Your task to perform on an android device: Go to Reddit.com Image 0: 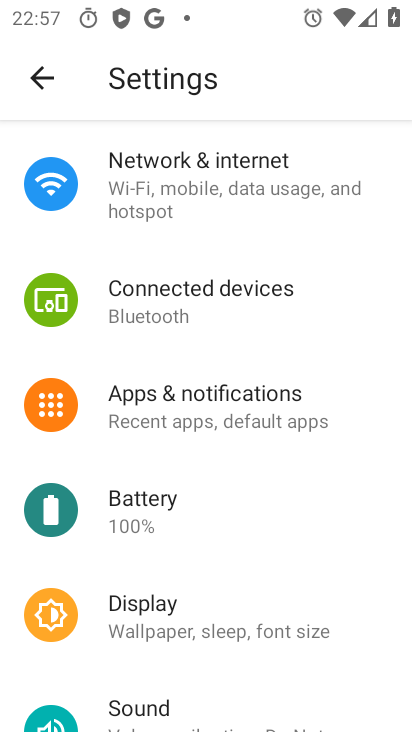
Step 0: click (28, 89)
Your task to perform on an android device: Go to Reddit.com Image 1: 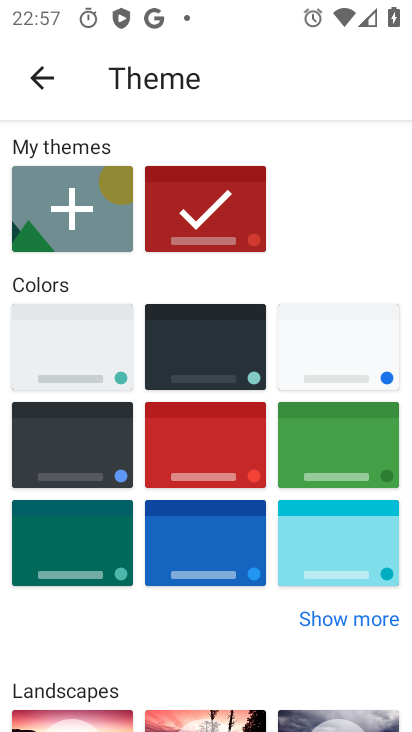
Step 1: click (29, 63)
Your task to perform on an android device: Go to Reddit.com Image 2: 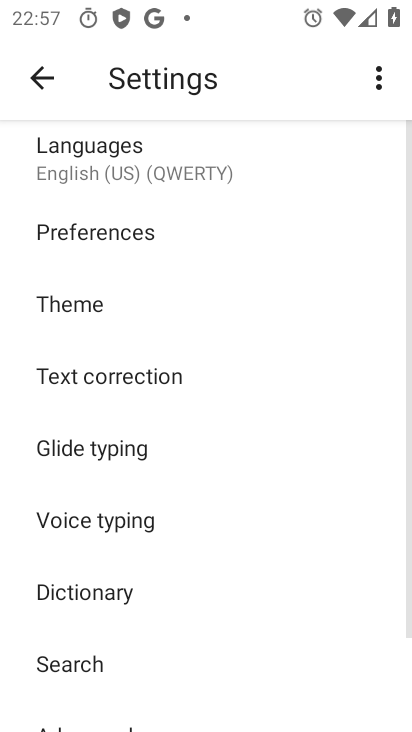
Step 2: click (13, 70)
Your task to perform on an android device: Go to Reddit.com Image 3: 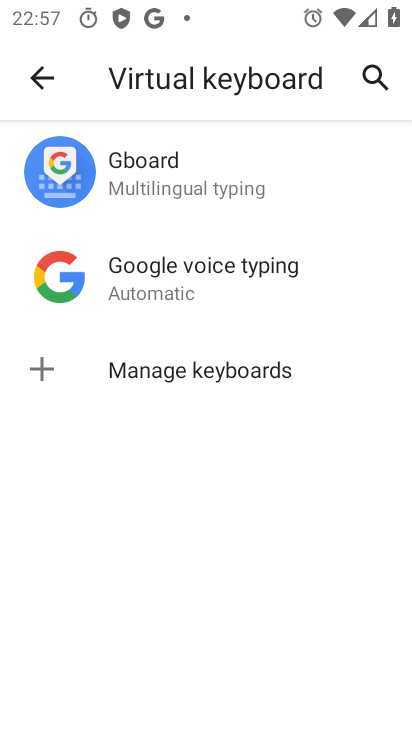
Step 3: click (38, 76)
Your task to perform on an android device: Go to Reddit.com Image 4: 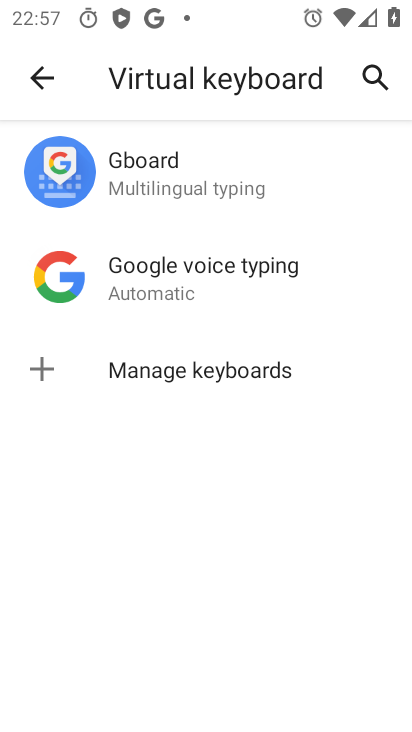
Step 4: click (39, 76)
Your task to perform on an android device: Go to Reddit.com Image 5: 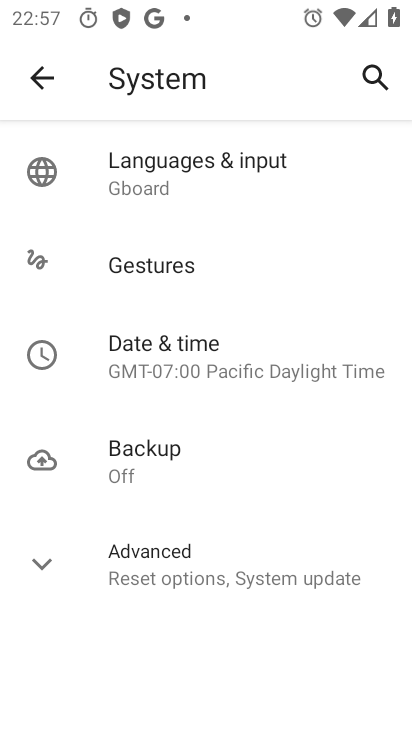
Step 5: click (38, 45)
Your task to perform on an android device: Go to Reddit.com Image 6: 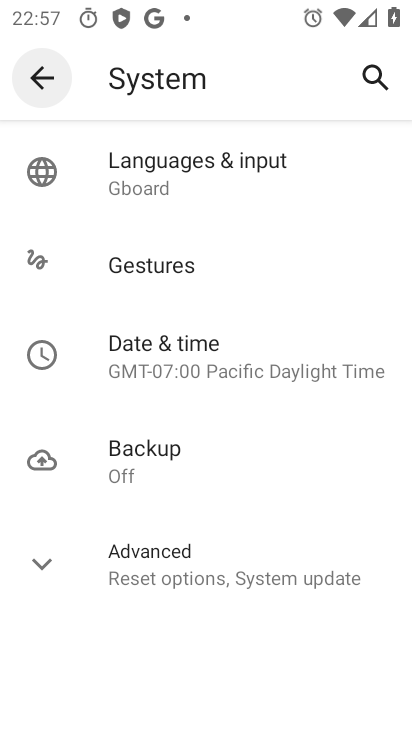
Step 6: click (44, 78)
Your task to perform on an android device: Go to Reddit.com Image 7: 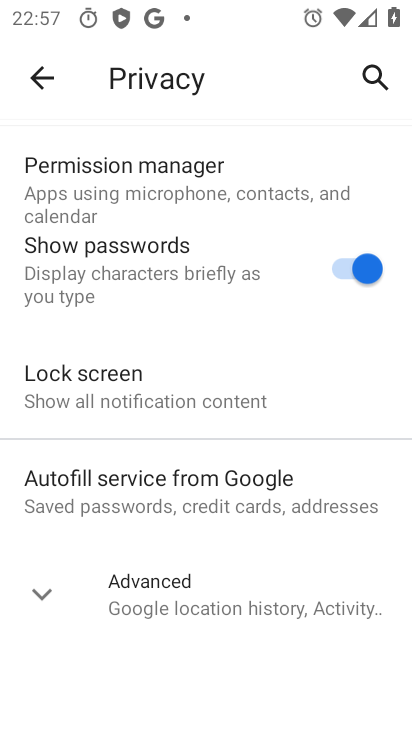
Step 7: press back button
Your task to perform on an android device: Go to Reddit.com Image 8: 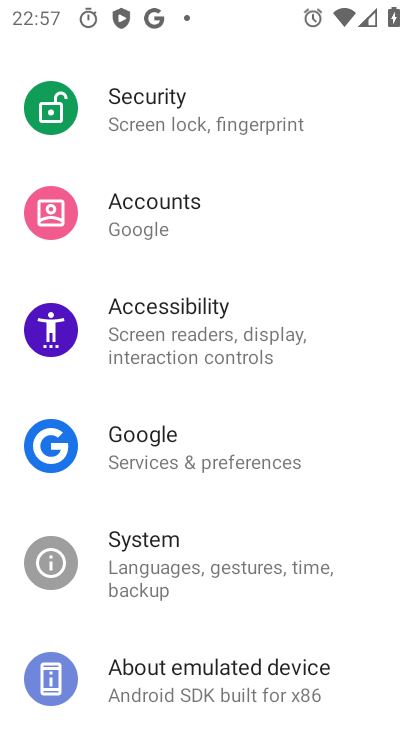
Step 8: click (41, 85)
Your task to perform on an android device: Go to Reddit.com Image 9: 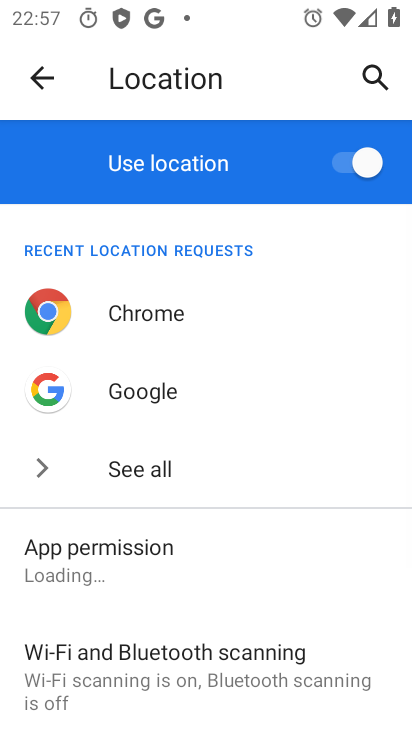
Step 9: click (31, 81)
Your task to perform on an android device: Go to Reddit.com Image 10: 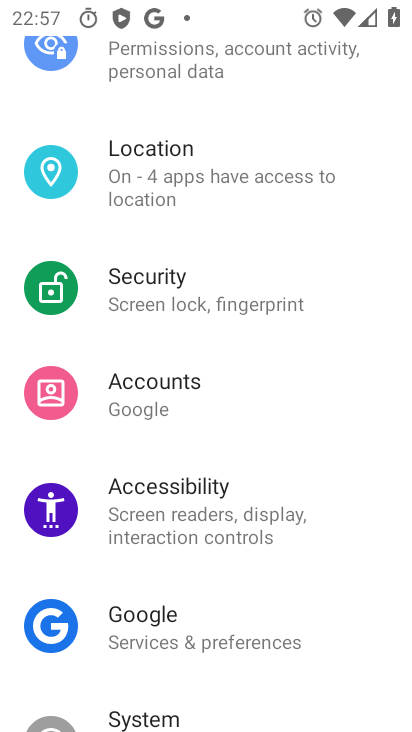
Step 10: press home button
Your task to perform on an android device: Go to Reddit.com Image 11: 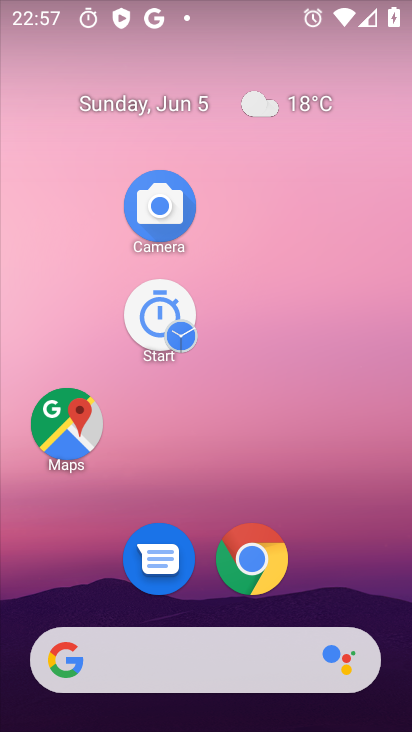
Step 11: drag from (160, 452) to (97, 123)
Your task to perform on an android device: Go to Reddit.com Image 12: 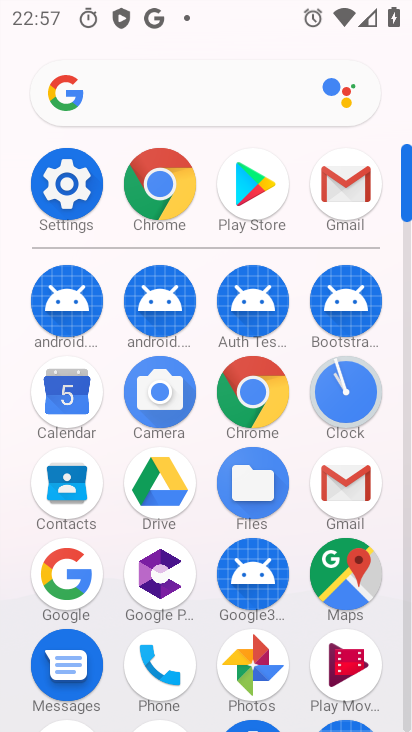
Step 12: click (140, 163)
Your task to perform on an android device: Go to Reddit.com Image 13: 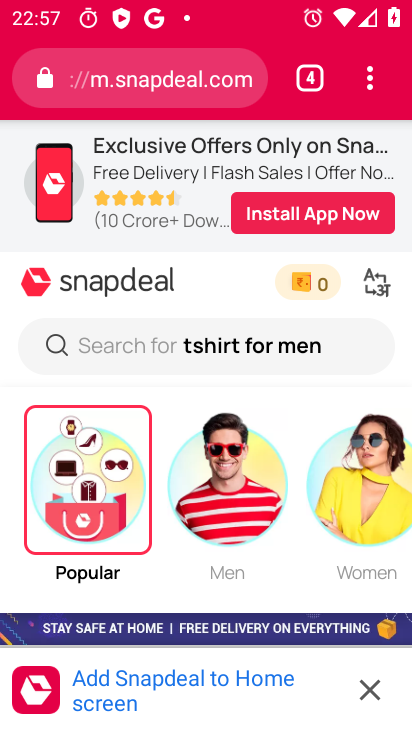
Step 13: click (367, 79)
Your task to perform on an android device: Go to Reddit.com Image 14: 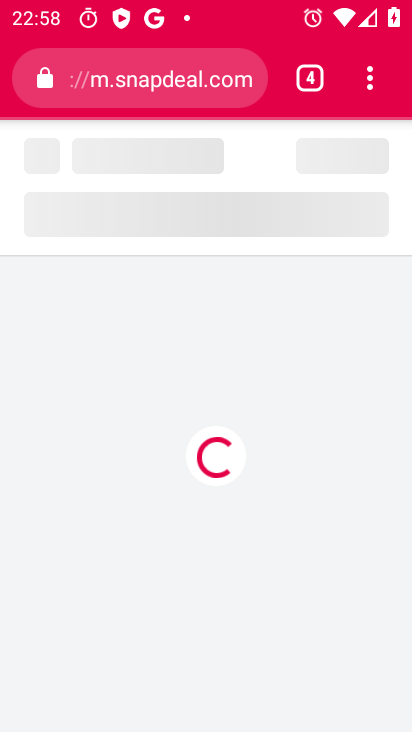
Step 14: drag from (368, 74) to (65, 156)
Your task to perform on an android device: Go to Reddit.com Image 15: 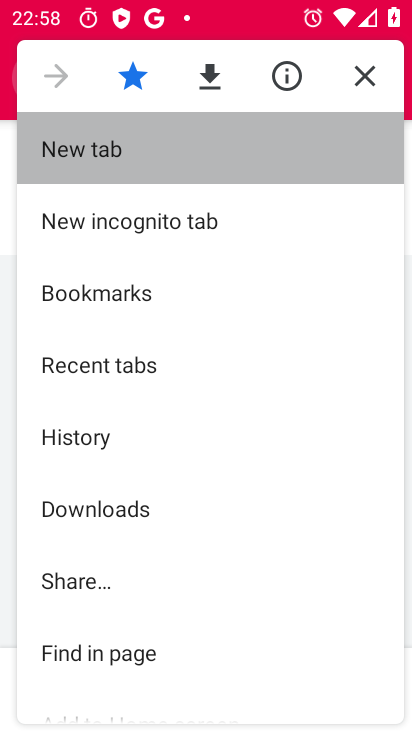
Step 15: click (67, 139)
Your task to perform on an android device: Go to Reddit.com Image 16: 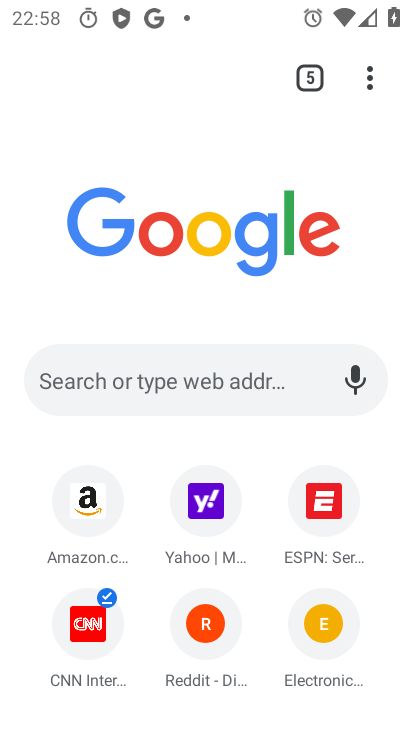
Step 16: click (72, 385)
Your task to perform on an android device: Go to Reddit.com Image 17: 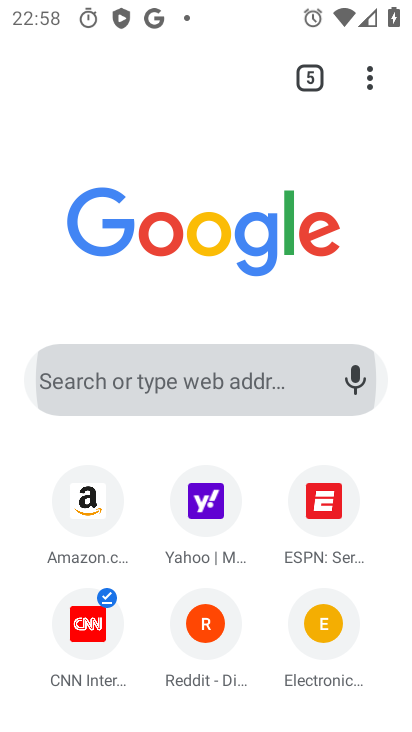
Step 17: click (72, 387)
Your task to perform on an android device: Go to Reddit.com Image 18: 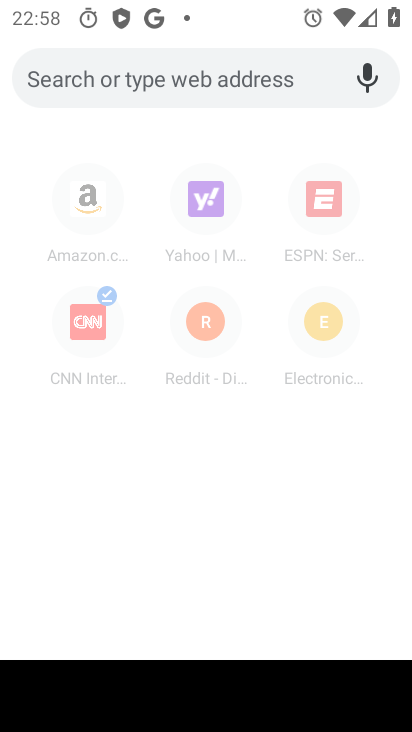
Step 18: click (205, 327)
Your task to perform on an android device: Go to Reddit.com Image 19: 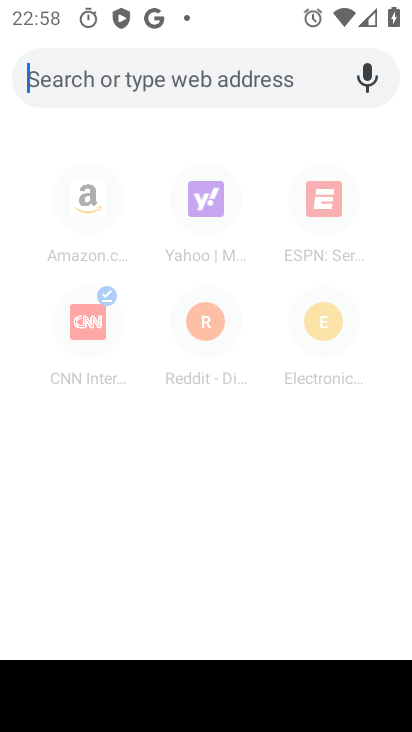
Step 19: click (205, 327)
Your task to perform on an android device: Go to Reddit.com Image 20: 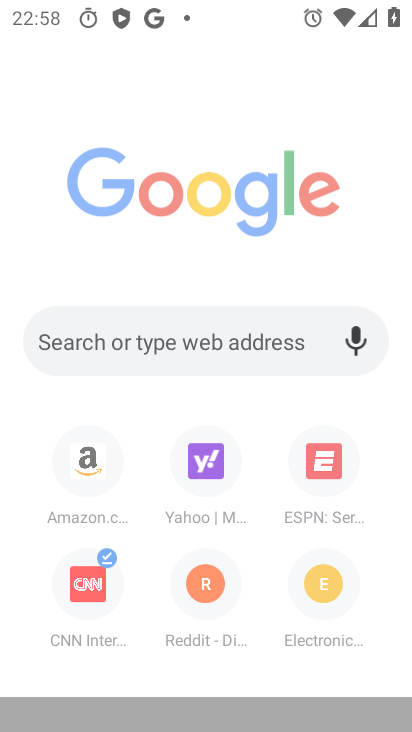
Step 20: click (206, 330)
Your task to perform on an android device: Go to Reddit.com Image 21: 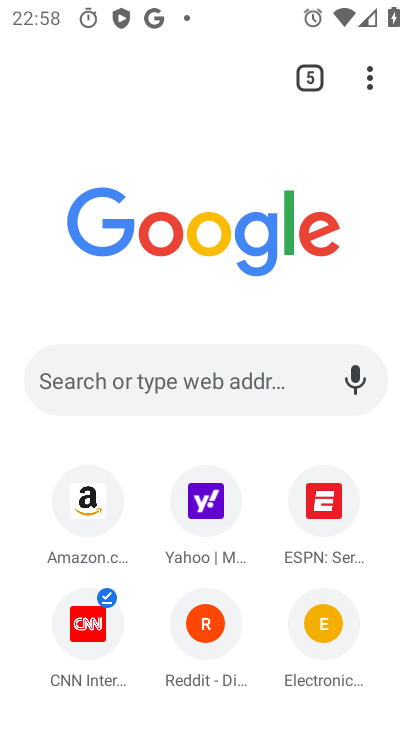
Step 21: click (207, 333)
Your task to perform on an android device: Go to Reddit.com Image 22: 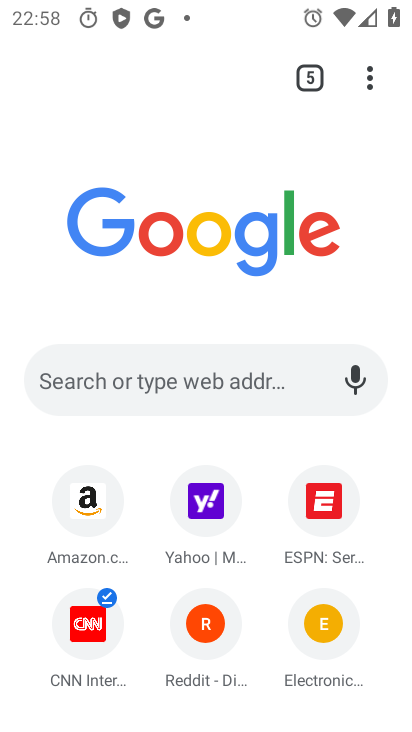
Step 22: click (193, 639)
Your task to perform on an android device: Go to Reddit.com Image 23: 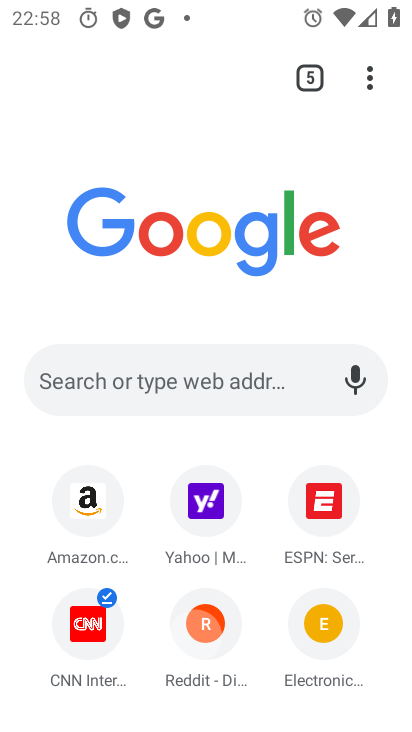
Step 23: click (193, 633)
Your task to perform on an android device: Go to Reddit.com Image 24: 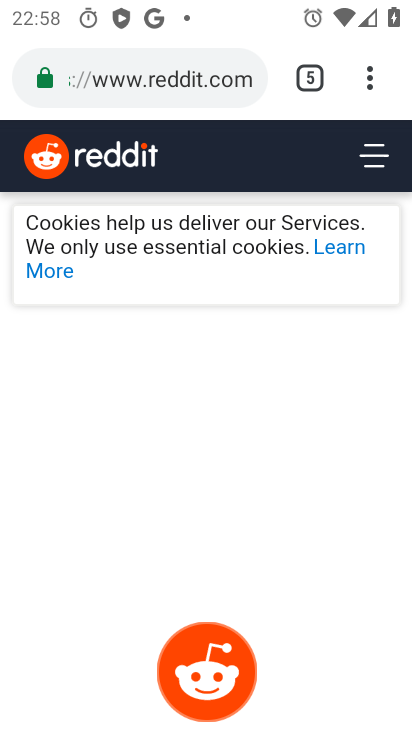
Step 24: task complete